Your task to perform on an android device: add a label to a message in the gmail app Image 0: 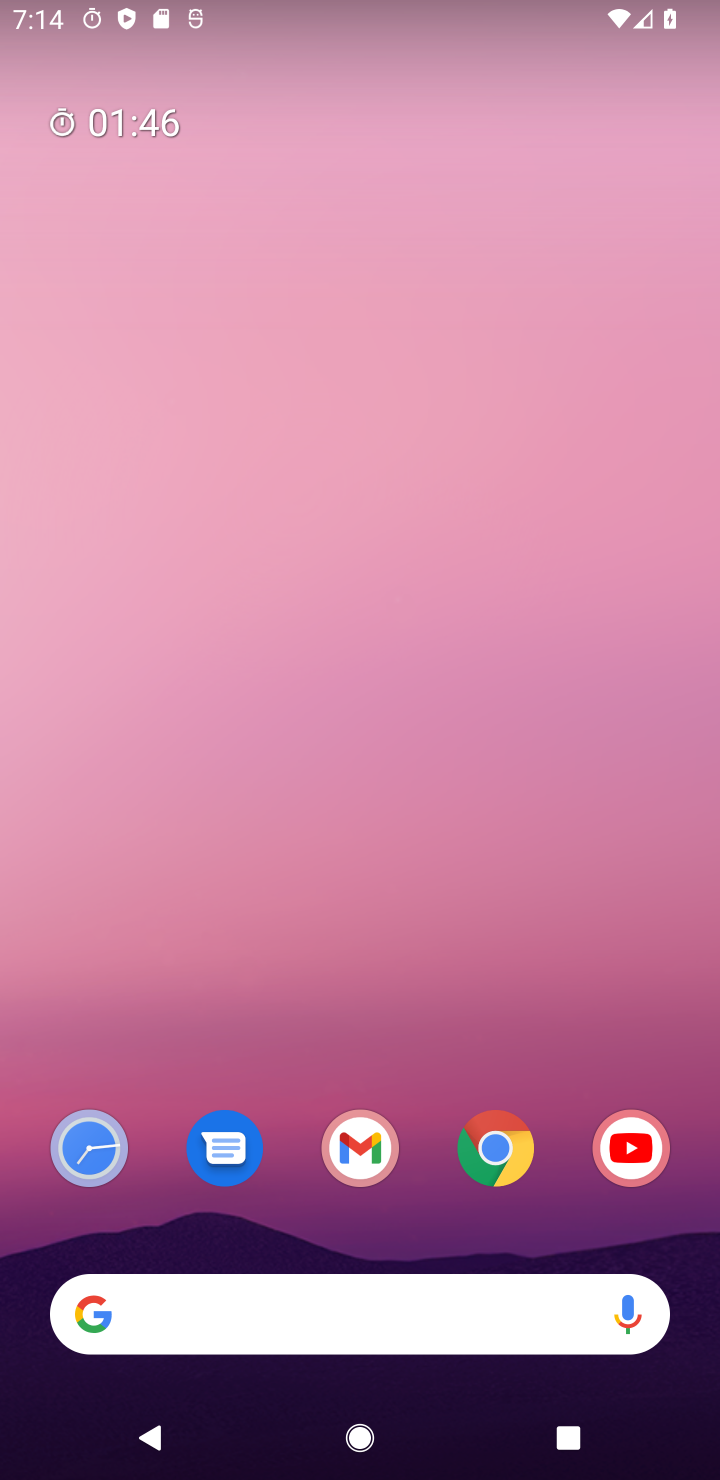
Step 0: press home button
Your task to perform on an android device: add a label to a message in the gmail app Image 1: 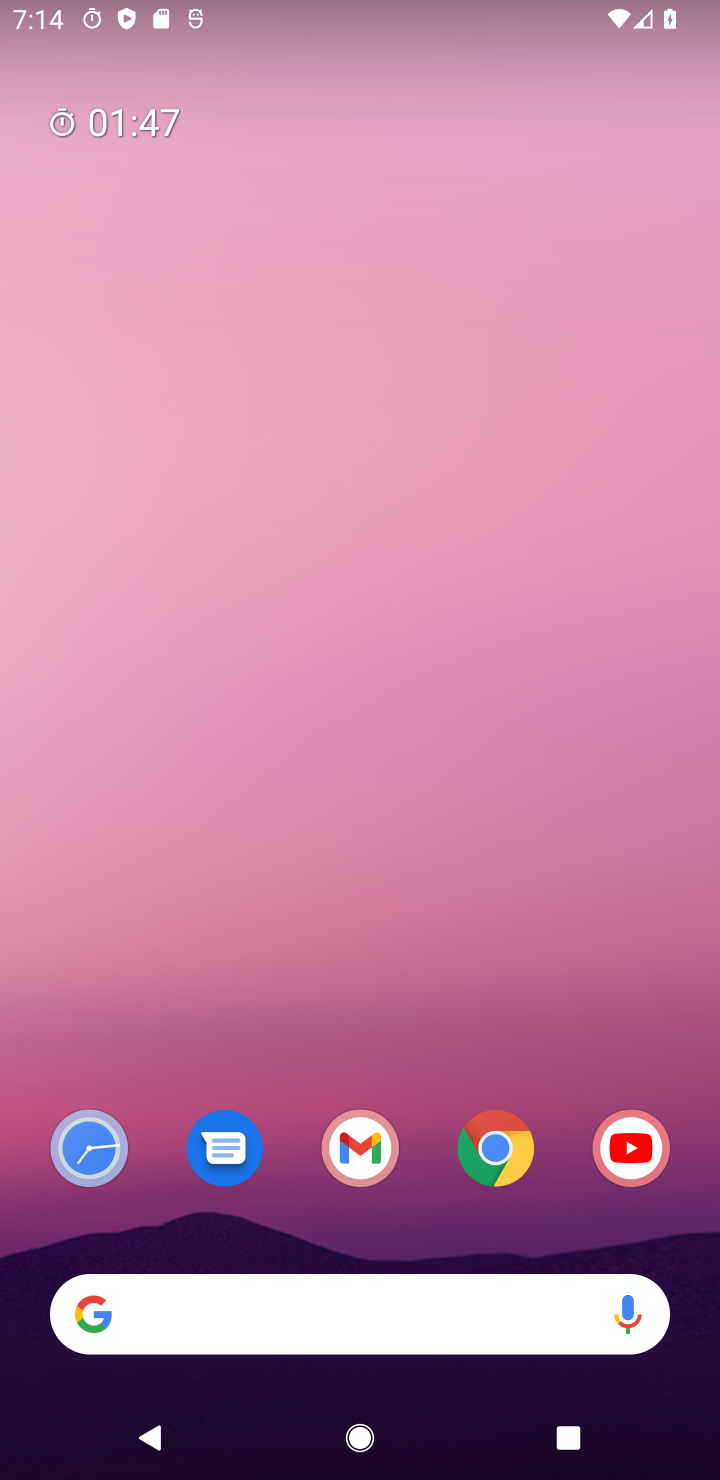
Step 1: drag from (311, 1091) to (225, 207)
Your task to perform on an android device: add a label to a message in the gmail app Image 2: 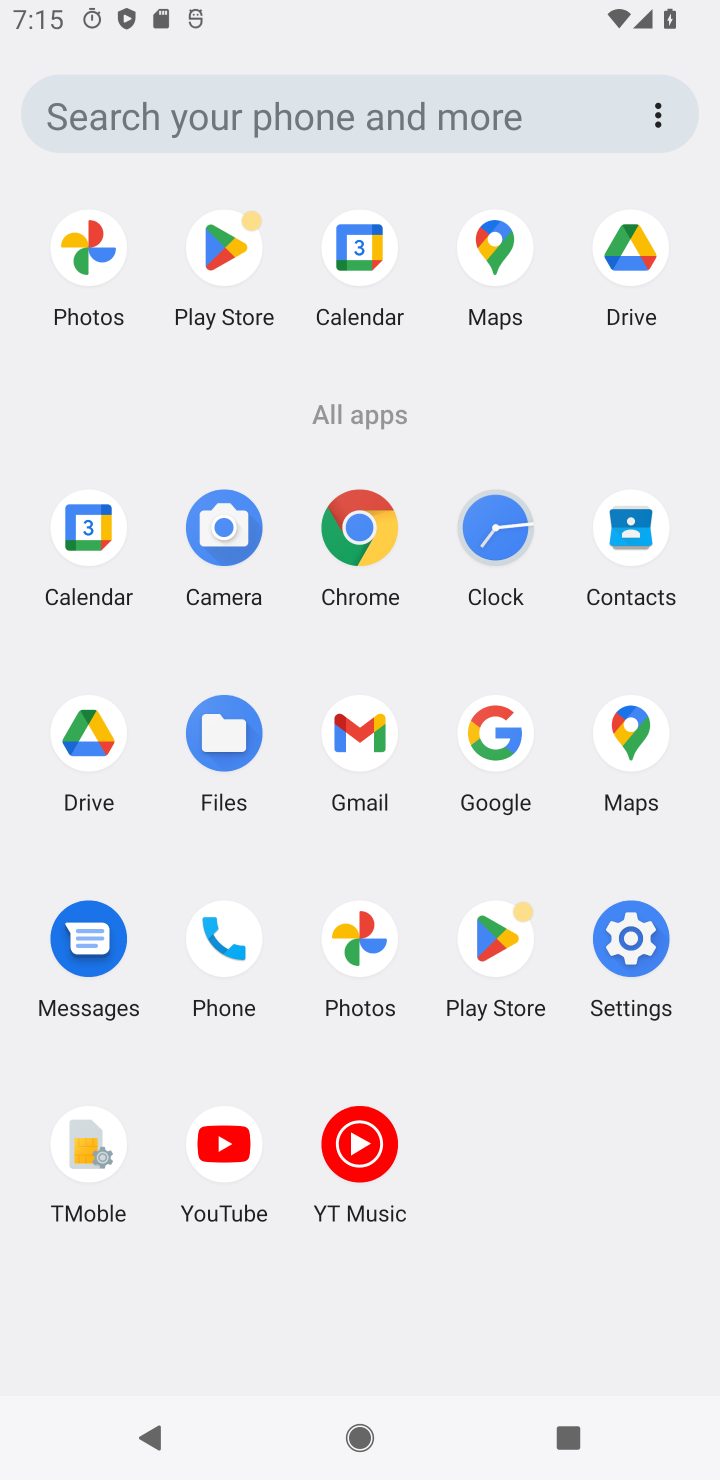
Step 2: press home button
Your task to perform on an android device: add a label to a message in the gmail app Image 3: 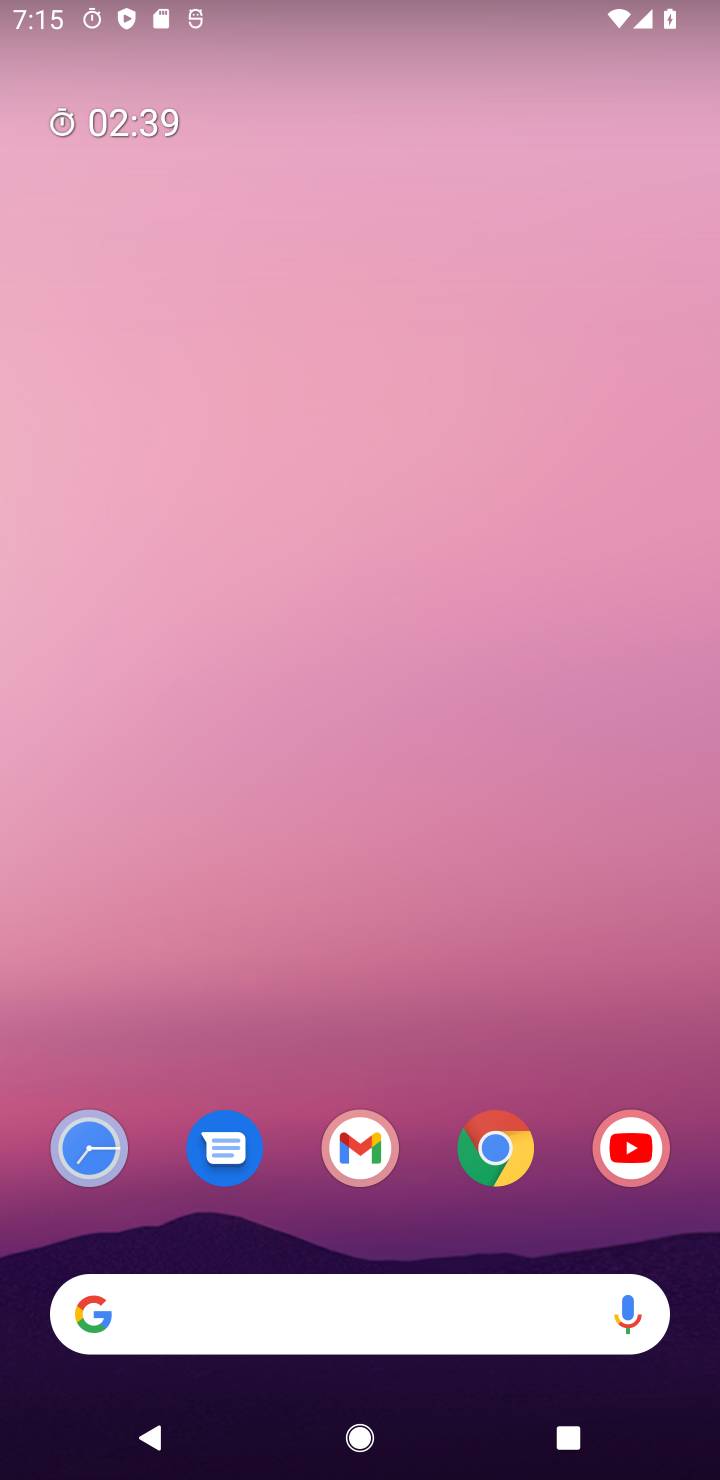
Step 3: drag from (433, 987) to (374, 9)
Your task to perform on an android device: add a label to a message in the gmail app Image 4: 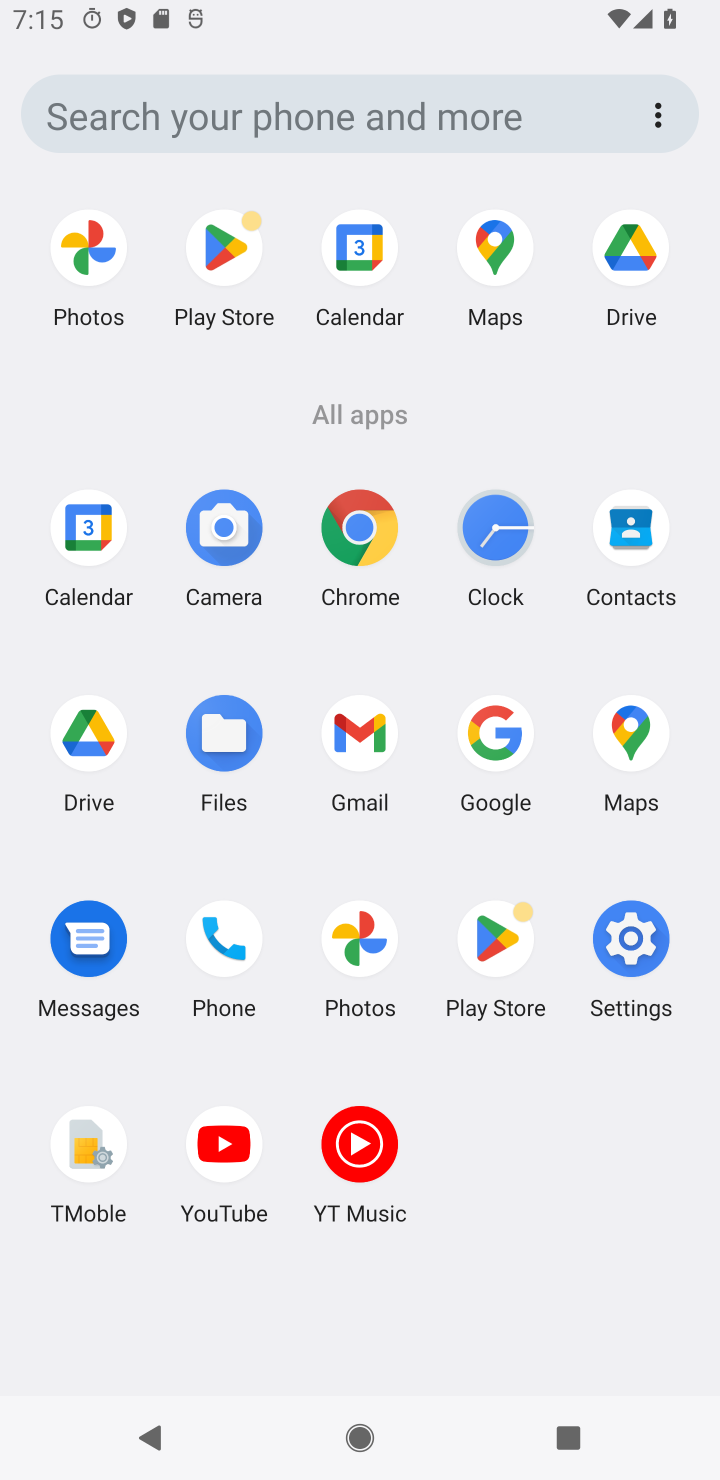
Step 4: click (342, 786)
Your task to perform on an android device: add a label to a message in the gmail app Image 5: 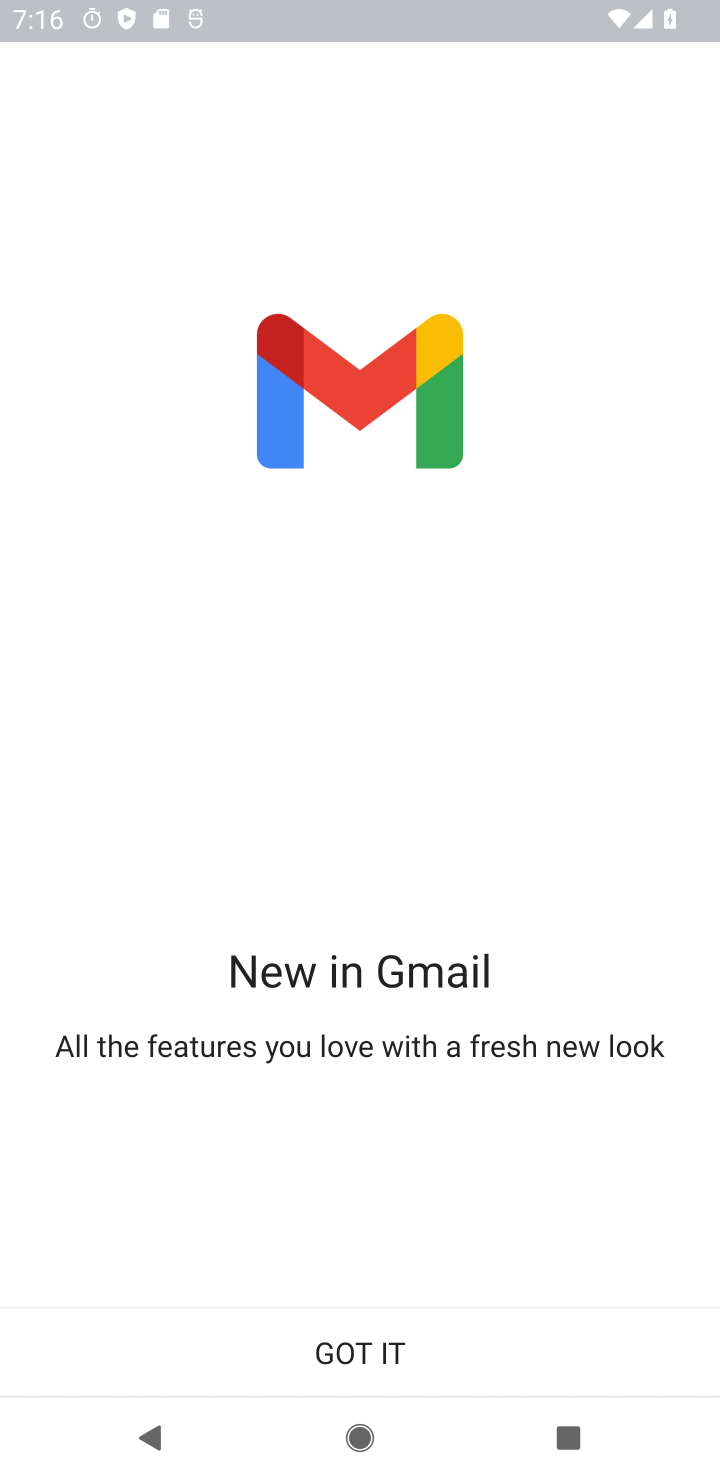
Step 5: click (304, 1349)
Your task to perform on an android device: add a label to a message in the gmail app Image 6: 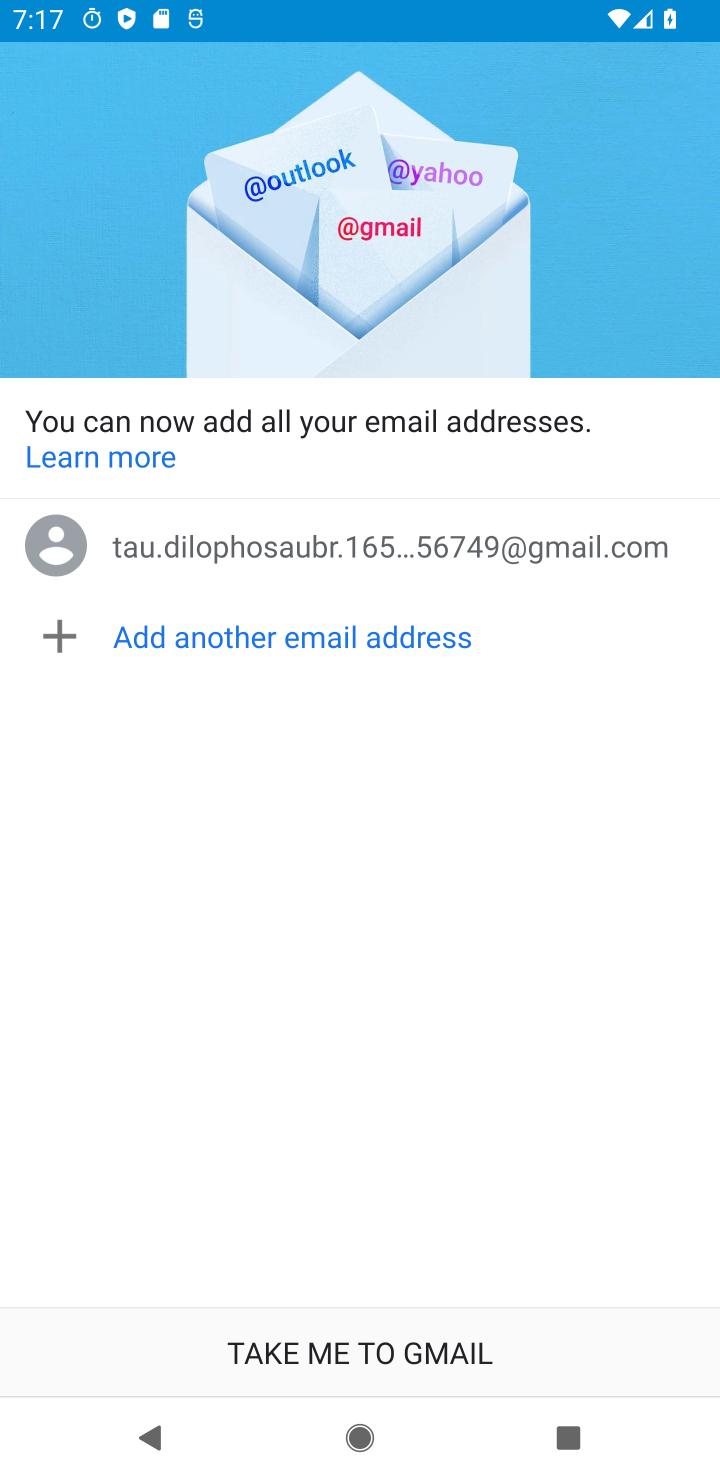
Step 6: click (504, 1355)
Your task to perform on an android device: add a label to a message in the gmail app Image 7: 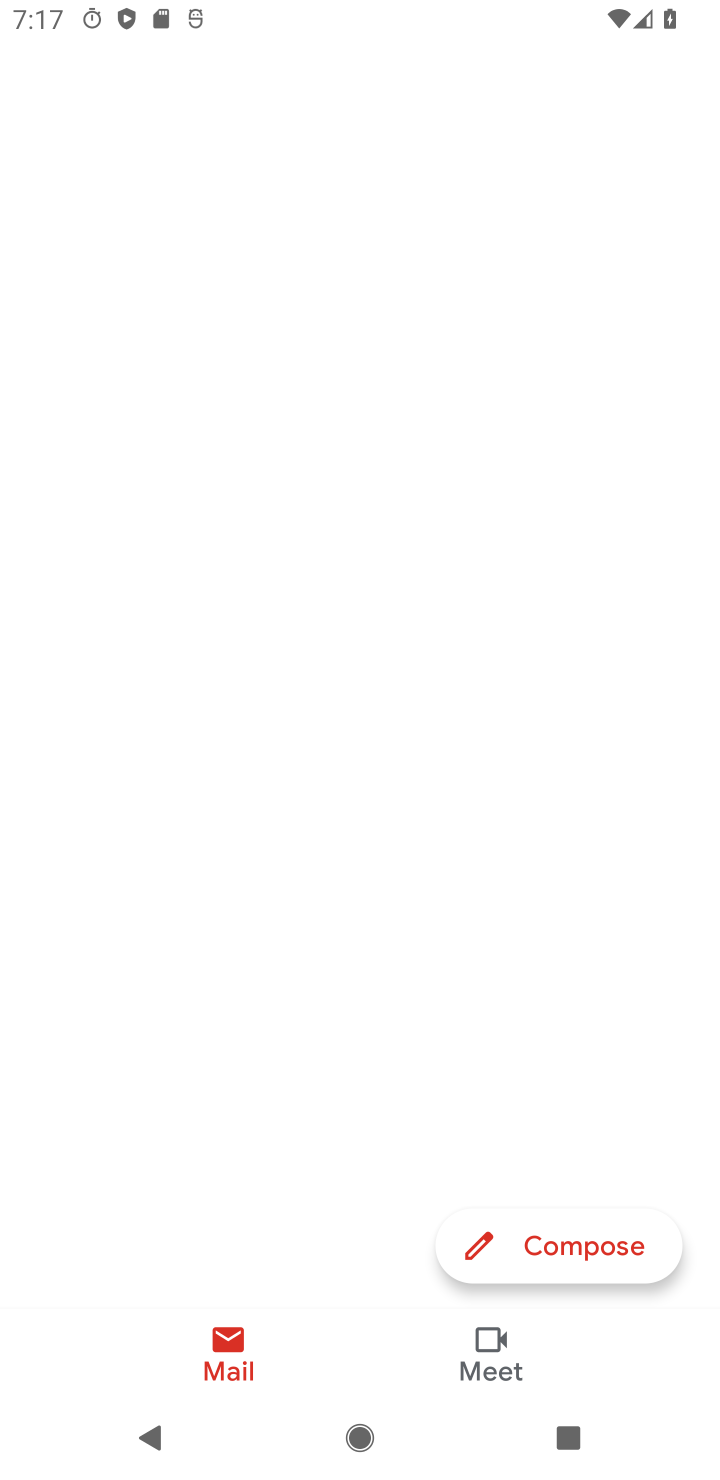
Step 7: click (400, 1109)
Your task to perform on an android device: add a label to a message in the gmail app Image 8: 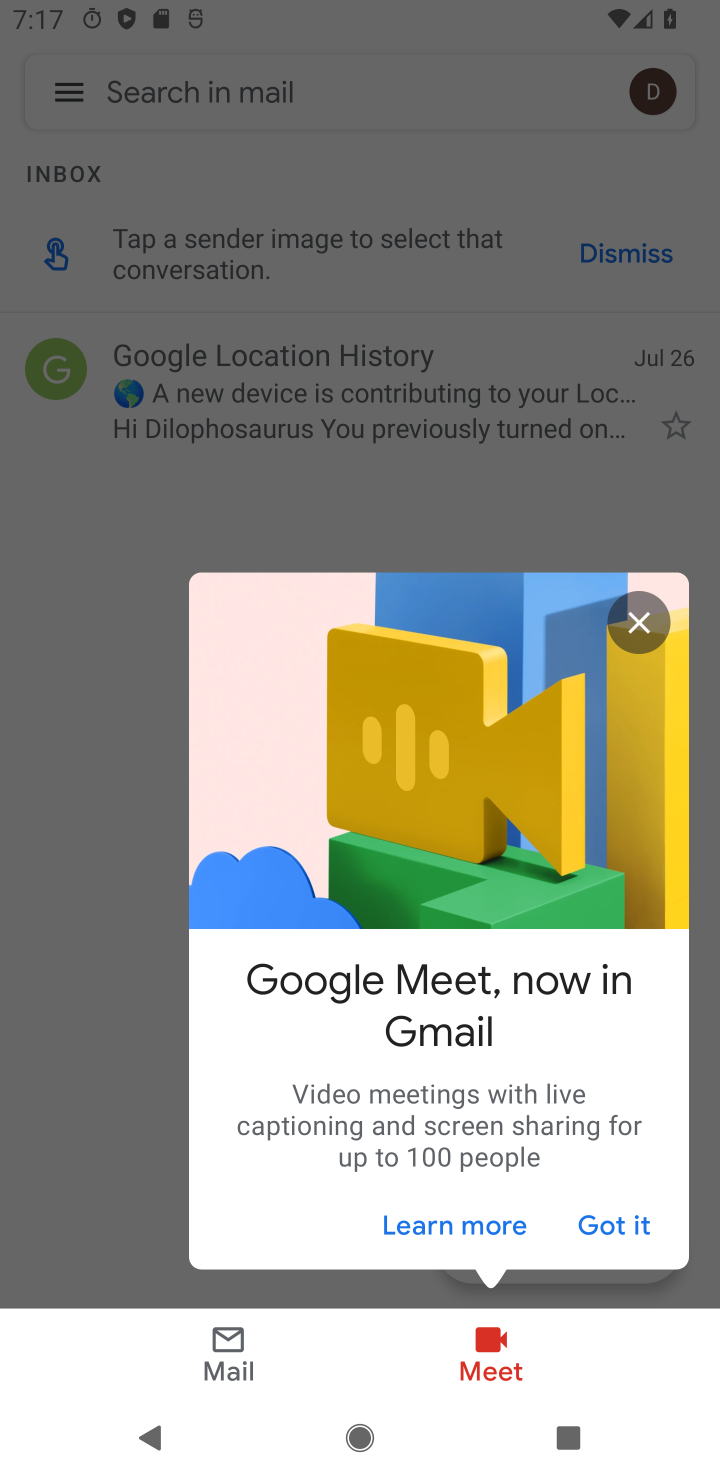
Step 8: click (632, 639)
Your task to perform on an android device: add a label to a message in the gmail app Image 9: 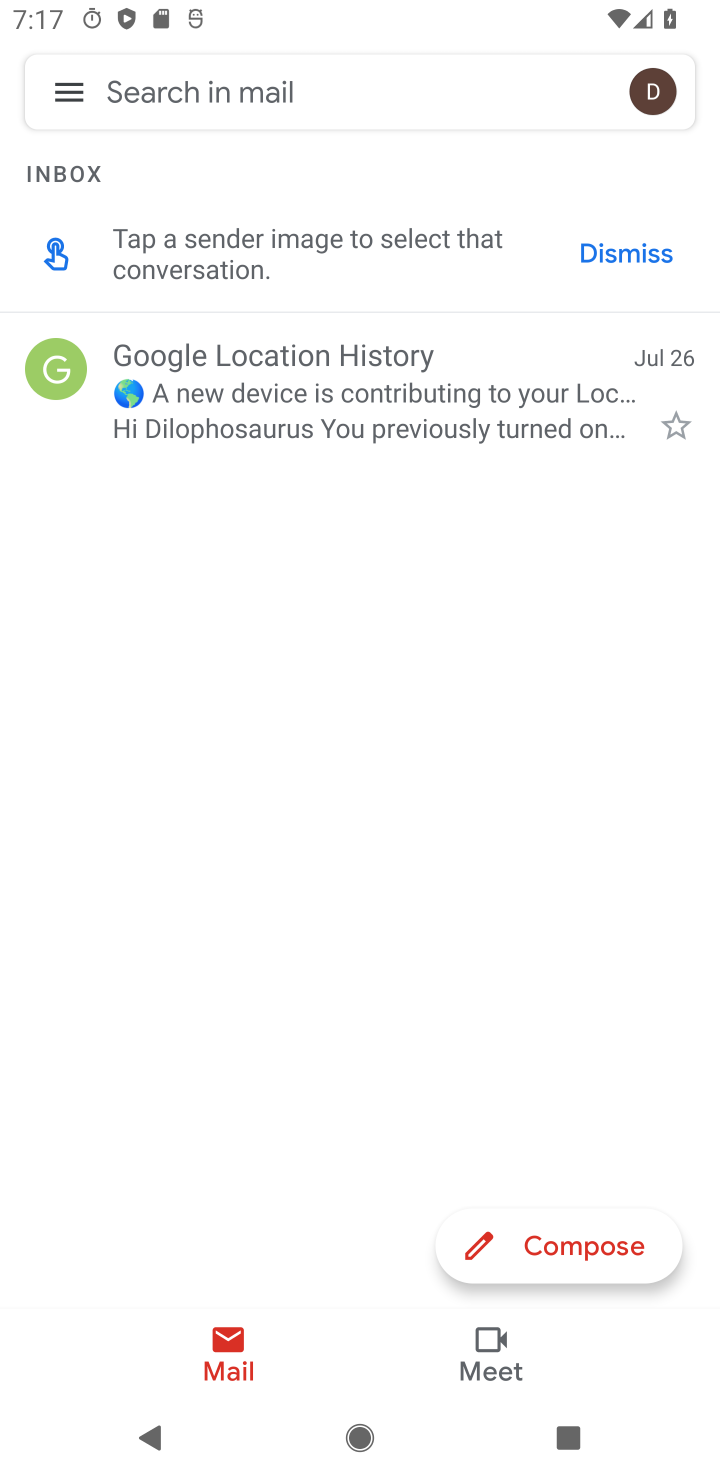
Step 9: click (71, 535)
Your task to perform on an android device: add a label to a message in the gmail app Image 10: 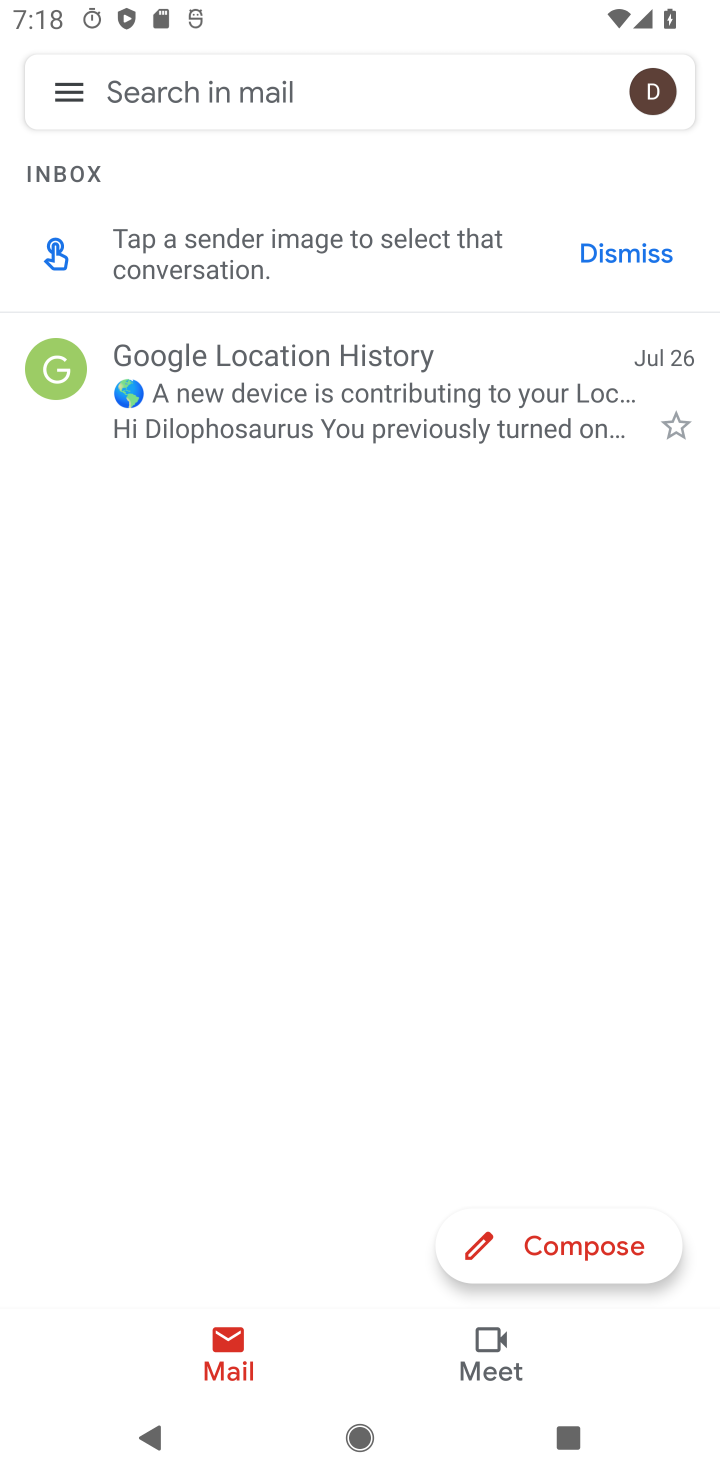
Step 10: task complete